Your task to perform on an android device: Go to sound settings Image 0: 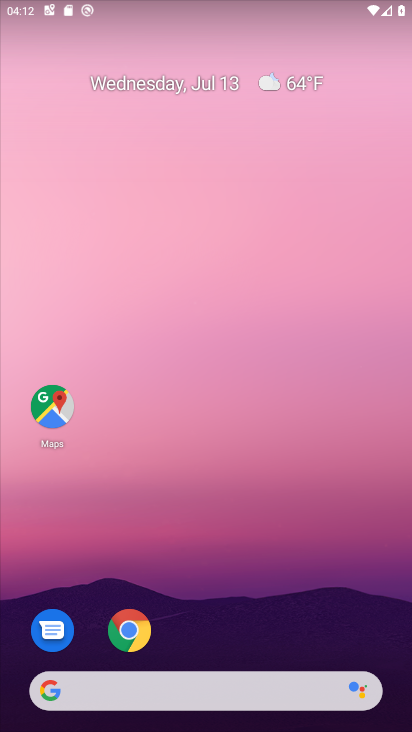
Step 0: click (193, 8)
Your task to perform on an android device: Go to sound settings Image 1: 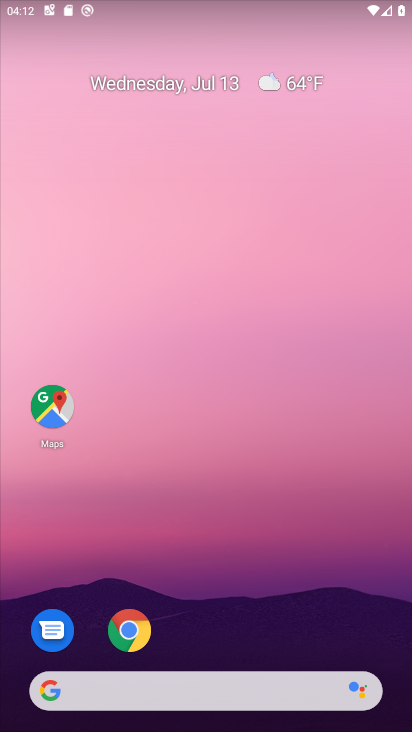
Step 1: drag from (198, 642) to (263, 23)
Your task to perform on an android device: Go to sound settings Image 2: 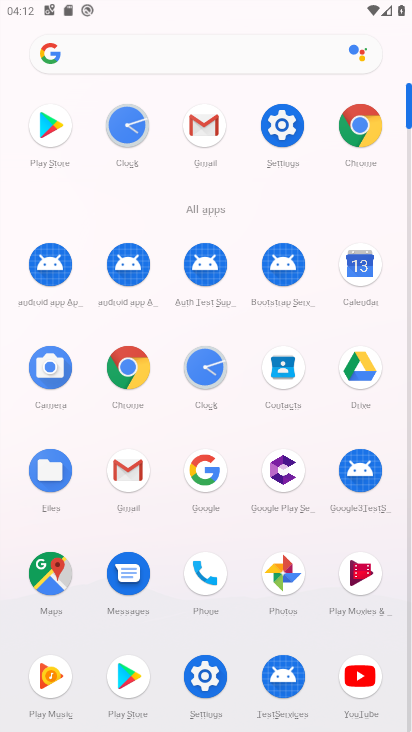
Step 2: click (291, 127)
Your task to perform on an android device: Go to sound settings Image 3: 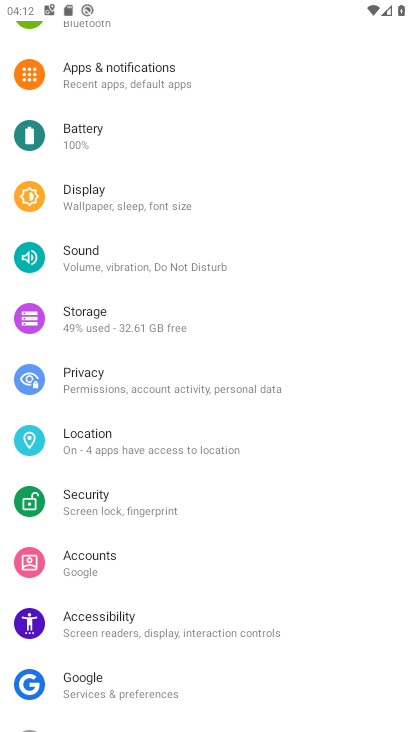
Step 3: click (99, 277)
Your task to perform on an android device: Go to sound settings Image 4: 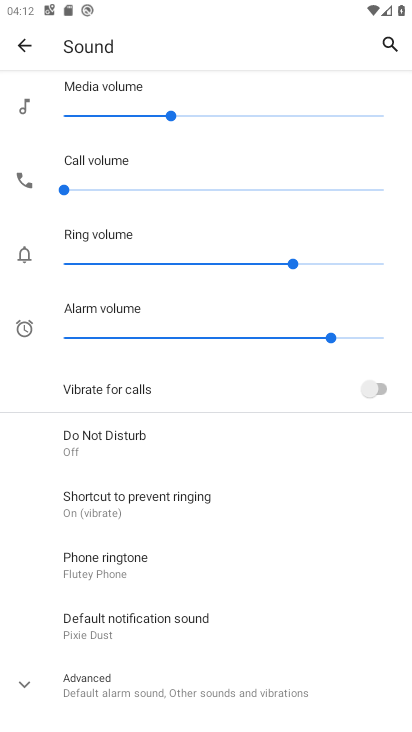
Step 4: task complete